Your task to perform on an android device: set the stopwatch Image 0: 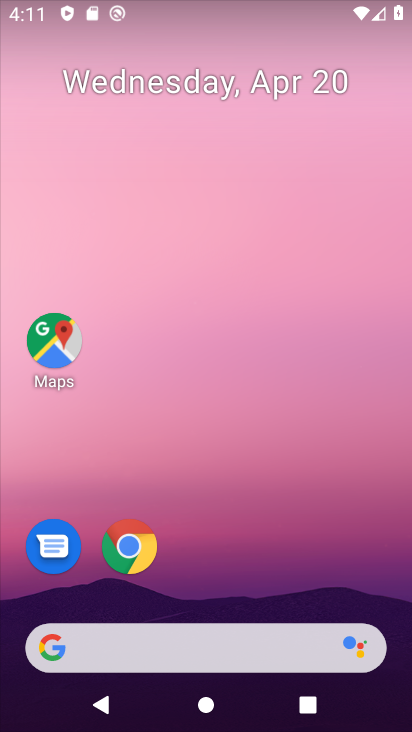
Step 0: drag from (336, 516) to (301, 75)
Your task to perform on an android device: set the stopwatch Image 1: 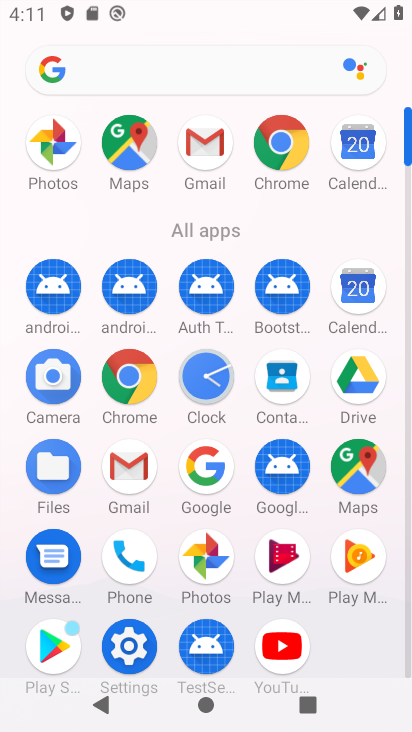
Step 1: click (212, 365)
Your task to perform on an android device: set the stopwatch Image 2: 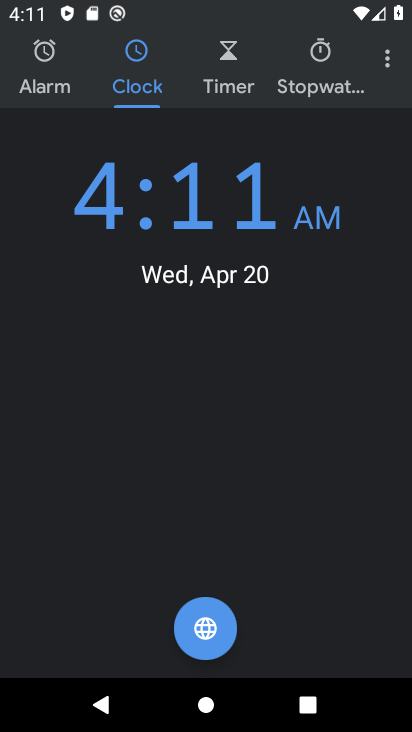
Step 2: click (329, 57)
Your task to perform on an android device: set the stopwatch Image 3: 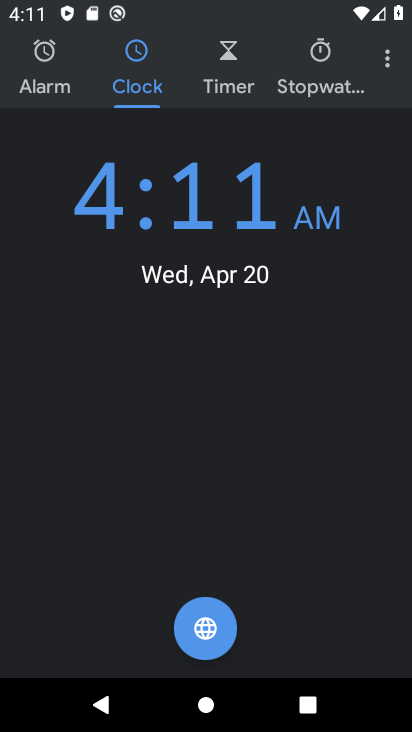
Step 3: click (329, 57)
Your task to perform on an android device: set the stopwatch Image 4: 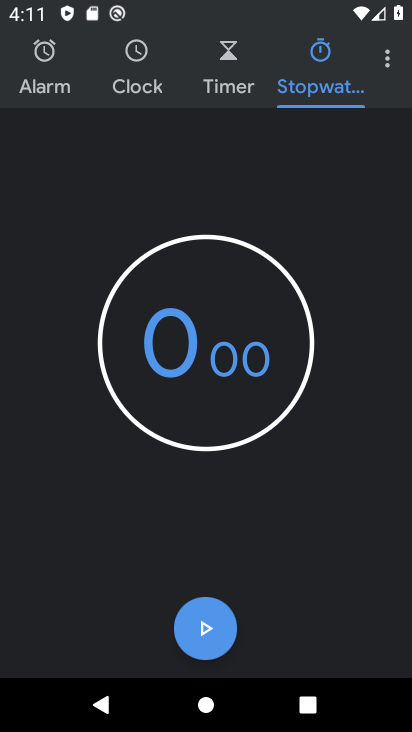
Step 4: click (259, 324)
Your task to perform on an android device: set the stopwatch Image 5: 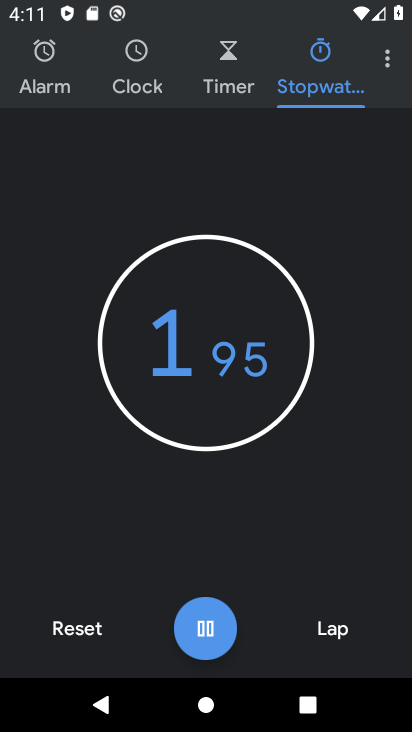
Step 5: click (214, 625)
Your task to perform on an android device: set the stopwatch Image 6: 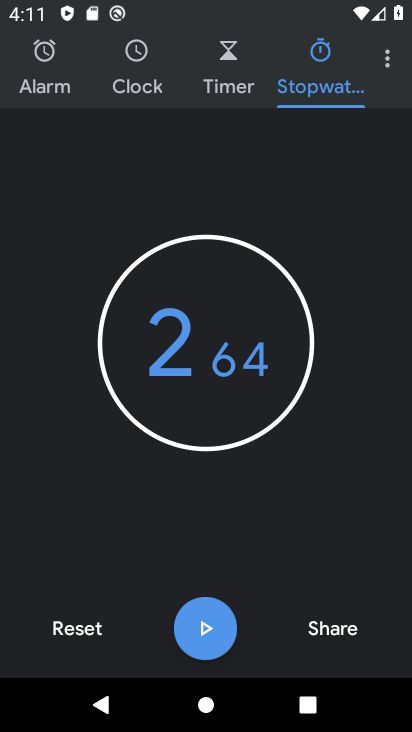
Step 6: task complete